Your task to perform on an android device: add a contact in the contacts app Image 0: 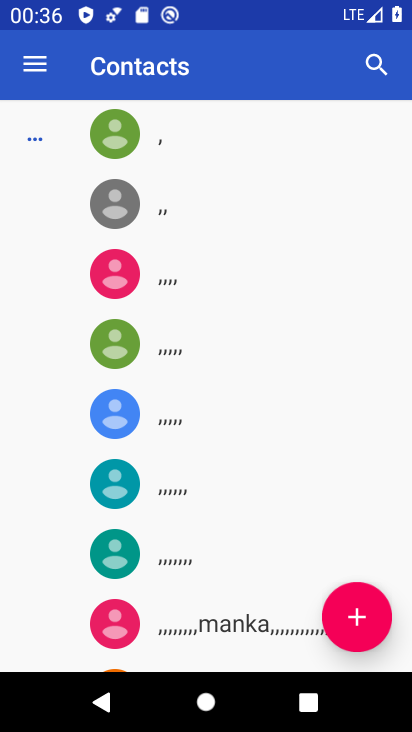
Step 0: press home button
Your task to perform on an android device: add a contact in the contacts app Image 1: 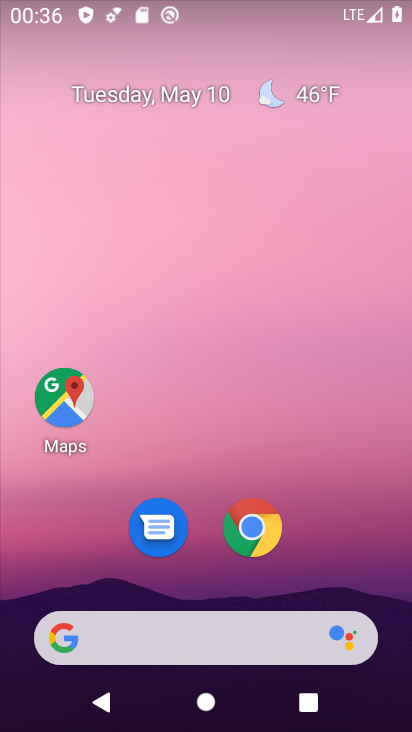
Step 1: drag from (336, 595) to (179, 151)
Your task to perform on an android device: add a contact in the contacts app Image 2: 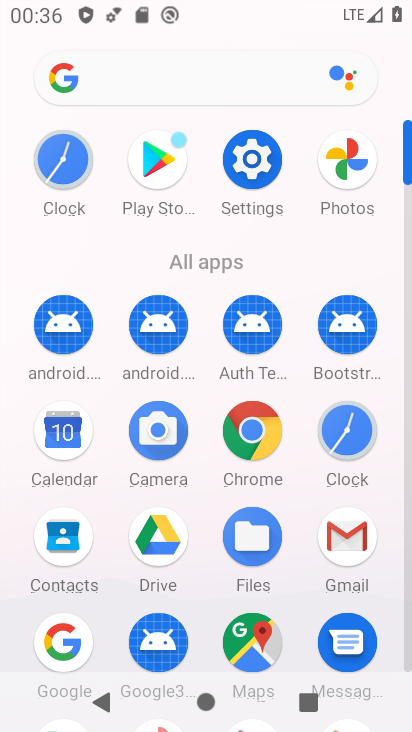
Step 2: click (51, 541)
Your task to perform on an android device: add a contact in the contacts app Image 3: 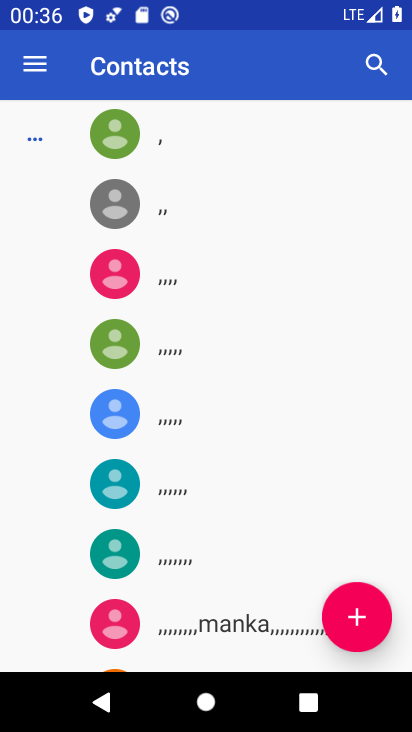
Step 3: click (335, 620)
Your task to perform on an android device: add a contact in the contacts app Image 4: 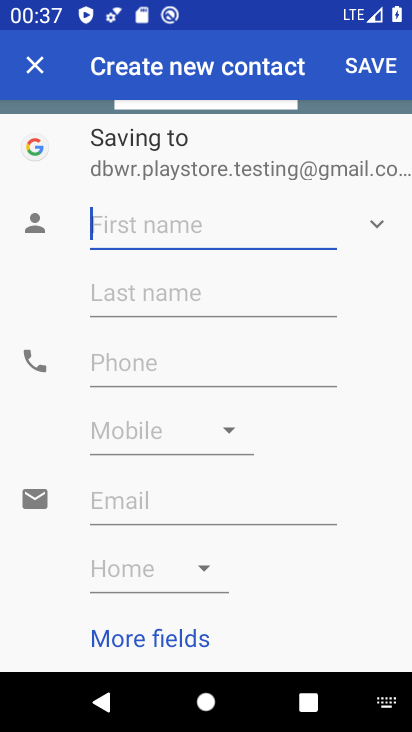
Step 4: click (203, 220)
Your task to perform on an android device: add a contact in the contacts app Image 5: 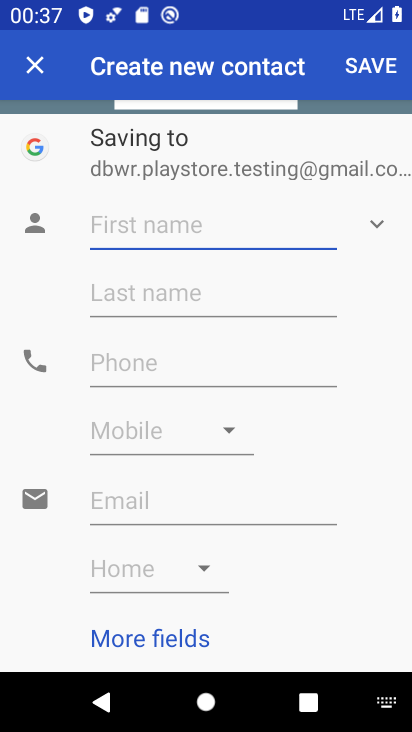
Step 5: type "mayka"
Your task to perform on an android device: add a contact in the contacts app Image 6: 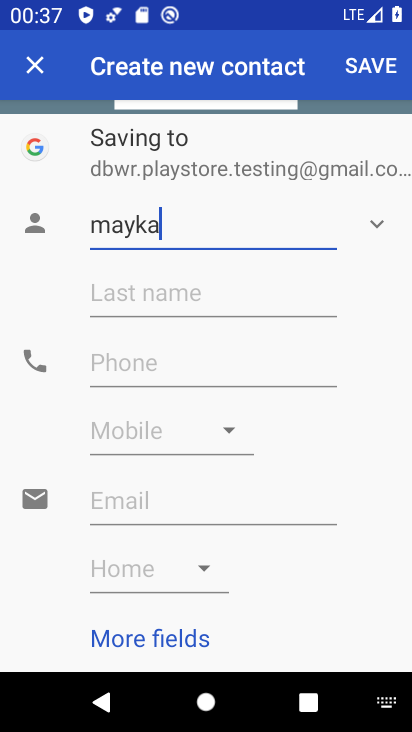
Step 6: click (151, 369)
Your task to perform on an android device: add a contact in the contacts app Image 7: 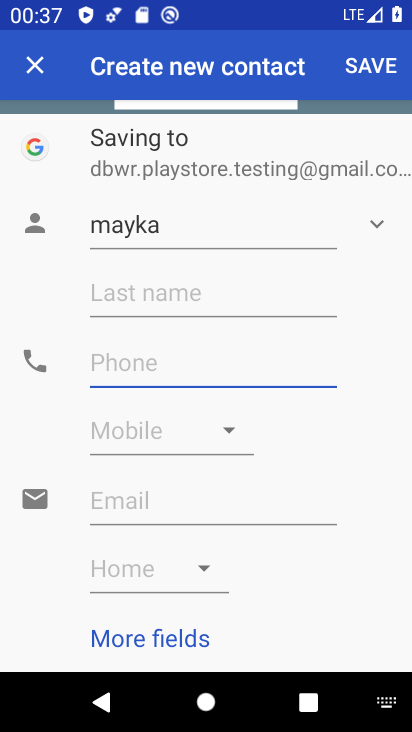
Step 7: type "3427654532"
Your task to perform on an android device: add a contact in the contacts app Image 8: 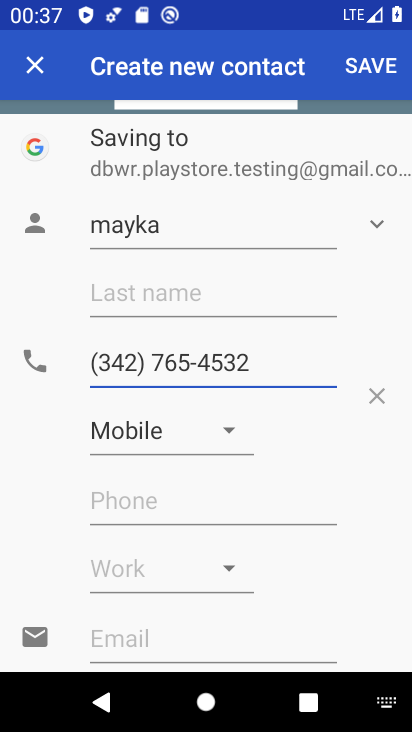
Step 8: click (372, 59)
Your task to perform on an android device: add a contact in the contacts app Image 9: 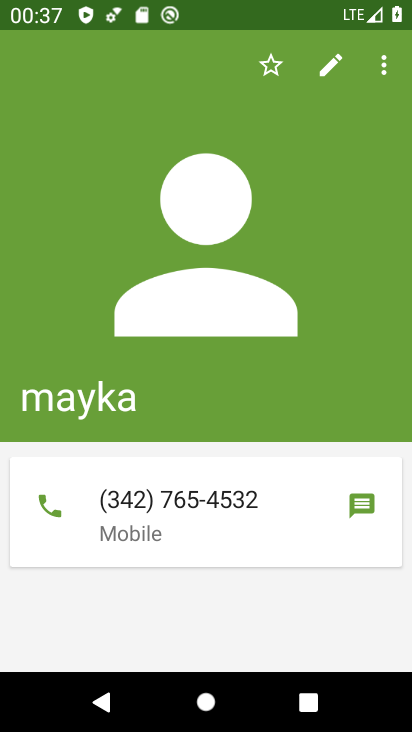
Step 9: task complete